Your task to perform on an android device: refresh tabs in the chrome app Image 0: 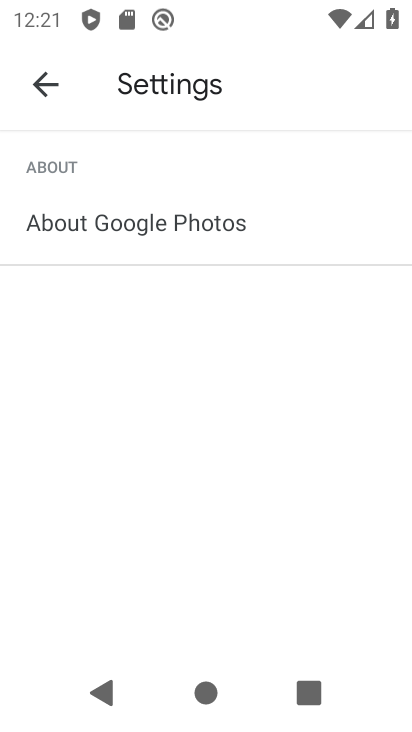
Step 0: press home button
Your task to perform on an android device: refresh tabs in the chrome app Image 1: 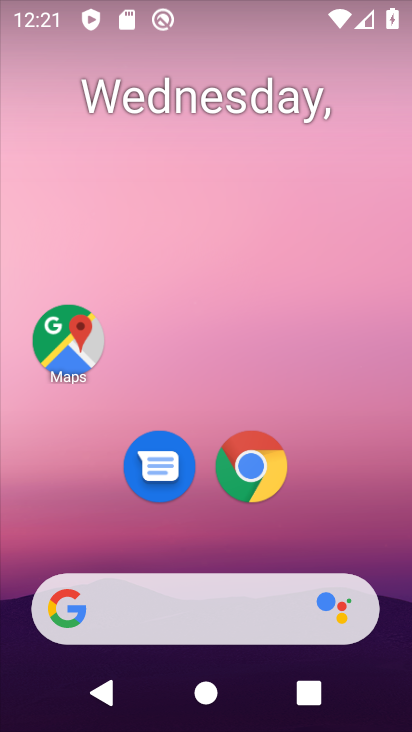
Step 1: click (262, 488)
Your task to perform on an android device: refresh tabs in the chrome app Image 2: 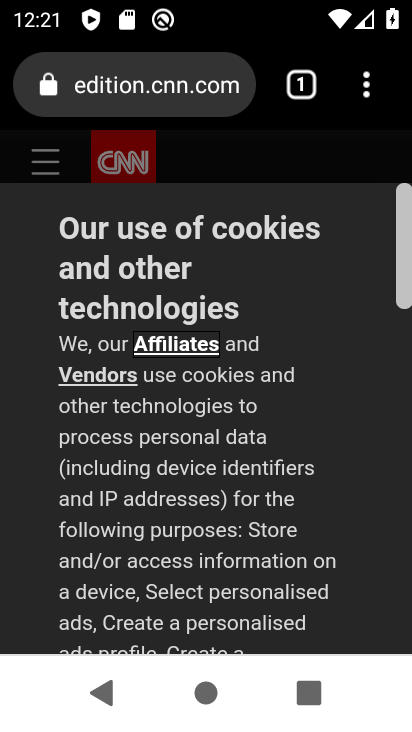
Step 2: click (377, 94)
Your task to perform on an android device: refresh tabs in the chrome app Image 3: 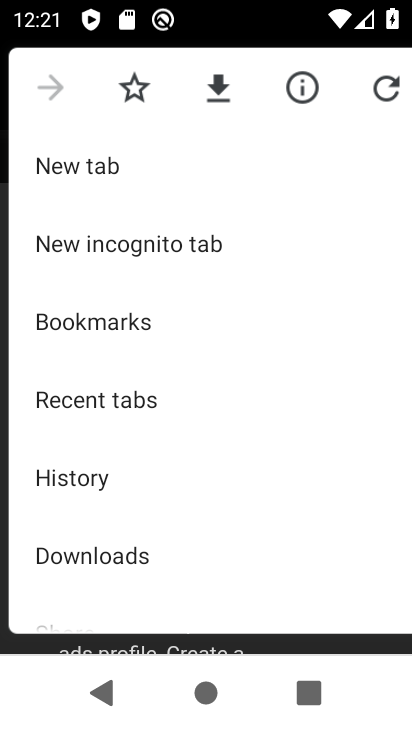
Step 3: click (387, 92)
Your task to perform on an android device: refresh tabs in the chrome app Image 4: 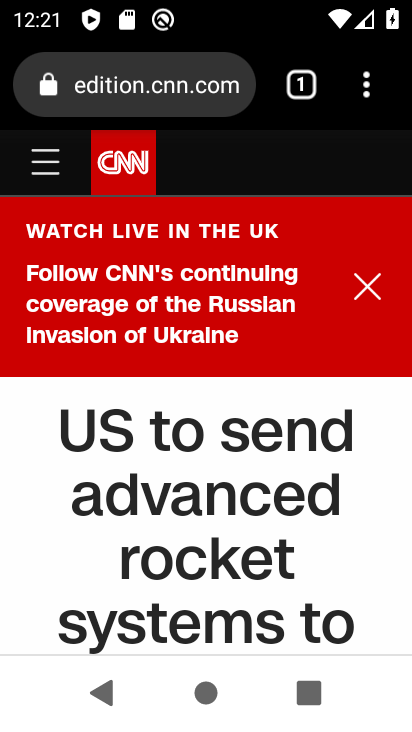
Step 4: task complete